Your task to perform on an android device: Do I have any events tomorrow? Image 0: 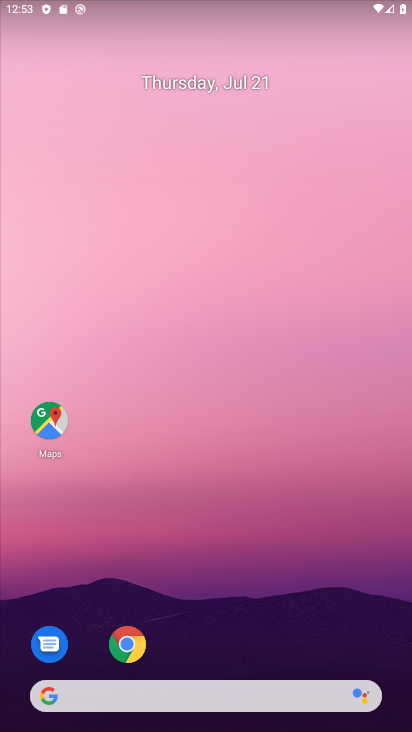
Step 0: drag from (232, 667) to (197, 28)
Your task to perform on an android device: Do I have any events tomorrow? Image 1: 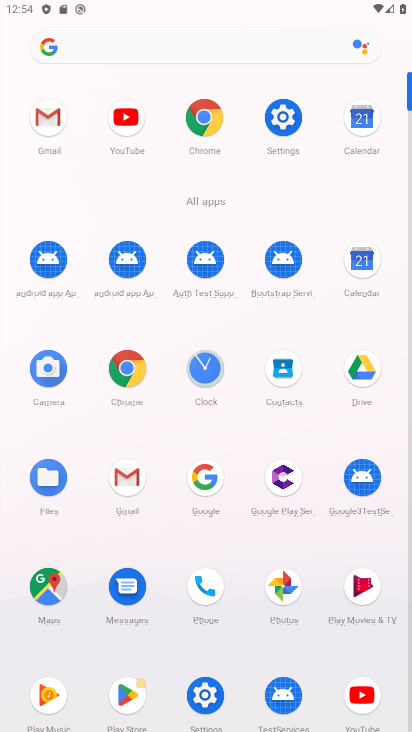
Step 1: click (381, 271)
Your task to perform on an android device: Do I have any events tomorrow? Image 2: 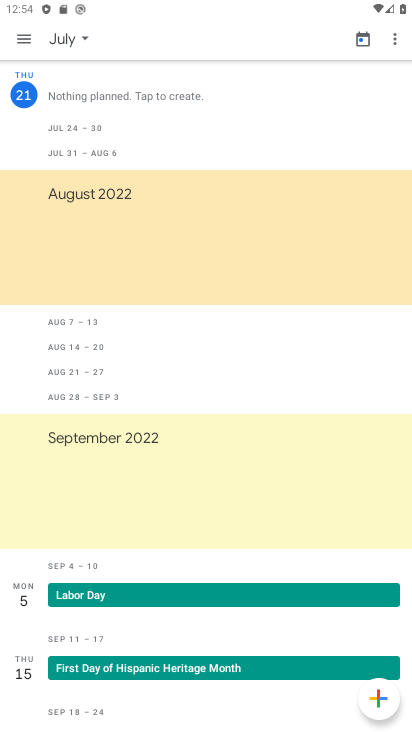
Step 2: click (367, 41)
Your task to perform on an android device: Do I have any events tomorrow? Image 3: 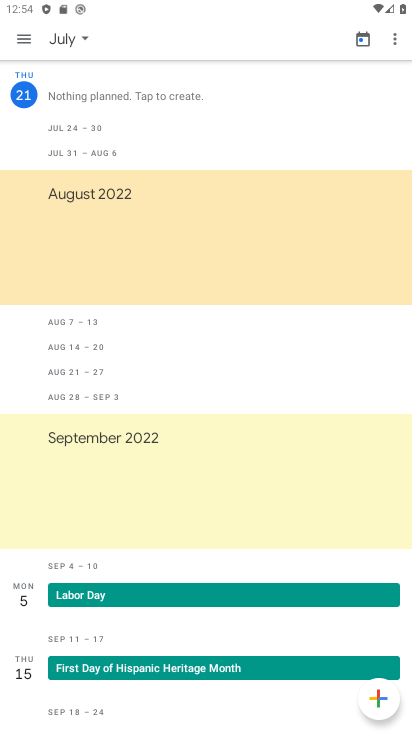
Step 3: click (26, 39)
Your task to perform on an android device: Do I have any events tomorrow? Image 4: 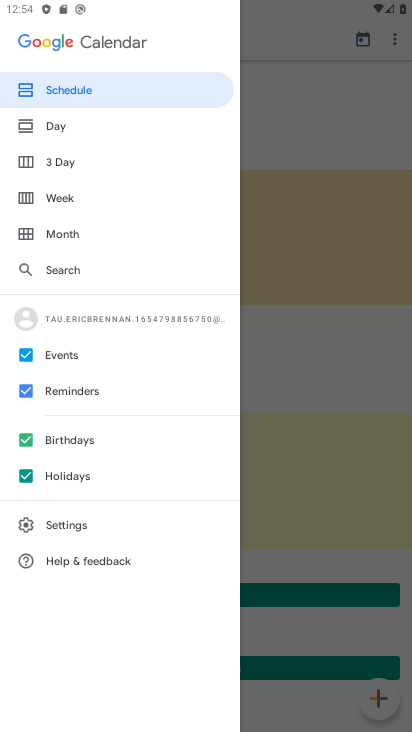
Step 4: click (69, 206)
Your task to perform on an android device: Do I have any events tomorrow? Image 5: 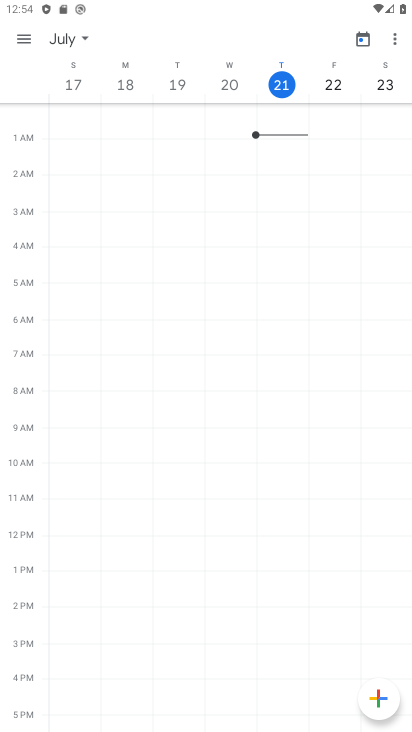
Step 5: click (335, 81)
Your task to perform on an android device: Do I have any events tomorrow? Image 6: 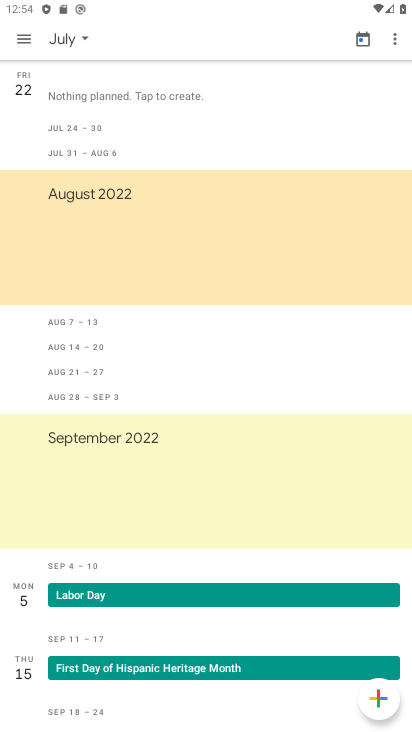
Step 6: task complete